Your task to perform on an android device: turn off location history Image 0: 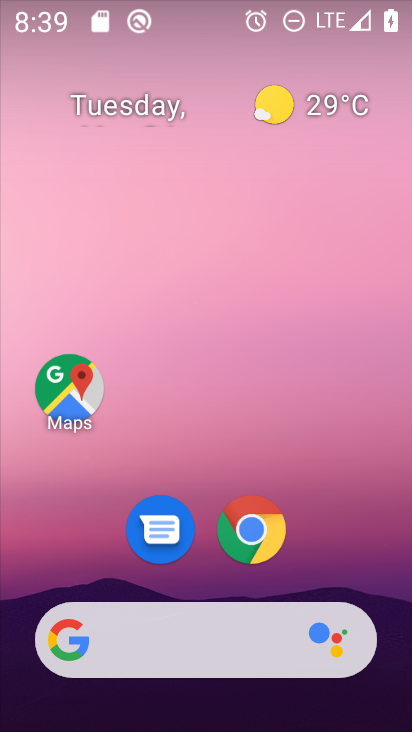
Step 0: drag from (388, 635) to (207, 17)
Your task to perform on an android device: turn off location history Image 1: 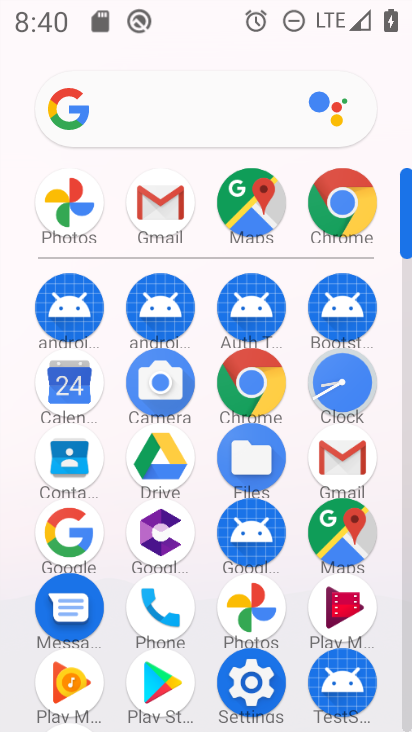
Step 1: click (269, 681)
Your task to perform on an android device: turn off location history Image 2: 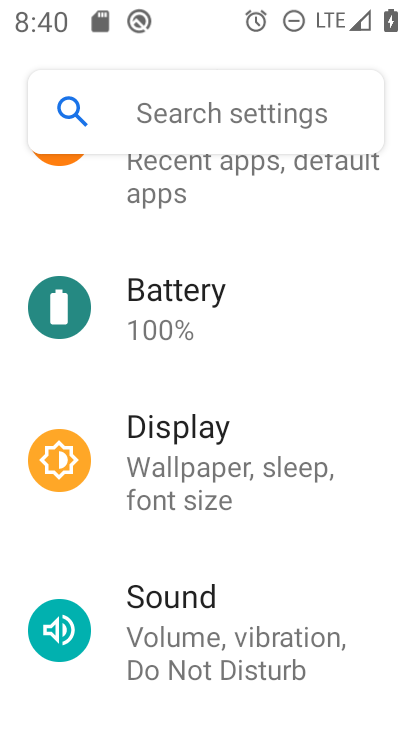
Step 2: drag from (219, 654) to (269, 228)
Your task to perform on an android device: turn off location history Image 3: 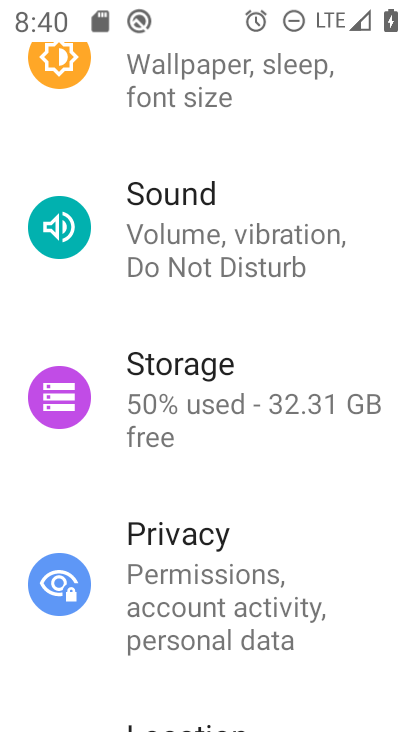
Step 3: drag from (124, 664) to (202, 214)
Your task to perform on an android device: turn off location history Image 4: 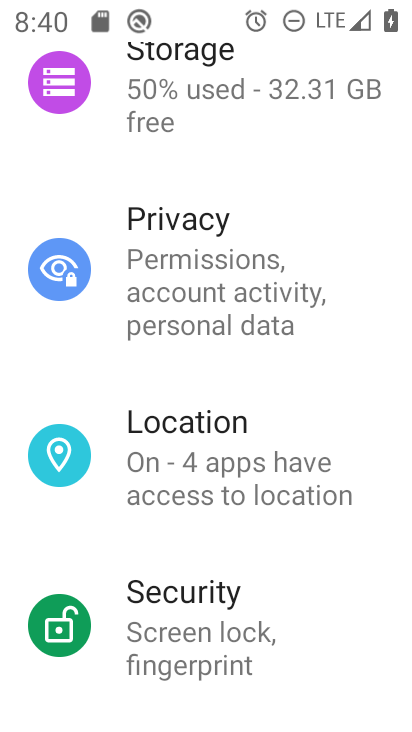
Step 4: click (223, 442)
Your task to perform on an android device: turn off location history Image 5: 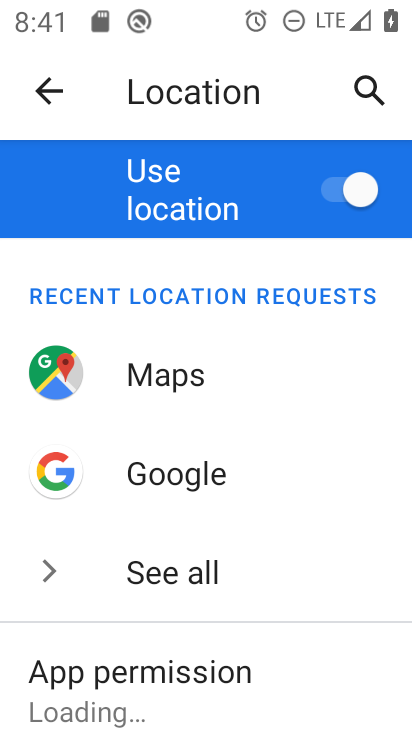
Step 5: drag from (197, 648) to (215, 154)
Your task to perform on an android device: turn off location history Image 6: 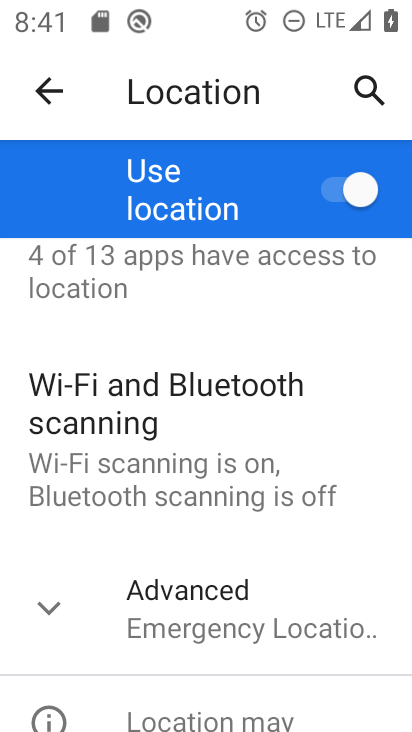
Step 6: click (157, 602)
Your task to perform on an android device: turn off location history Image 7: 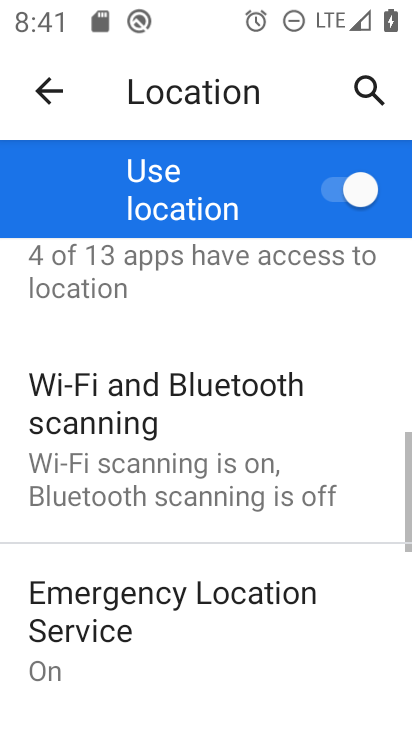
Step 7: drag from (181, 625) to (267, 205)
Your task to perform on an android device: turn off location history Image 8: 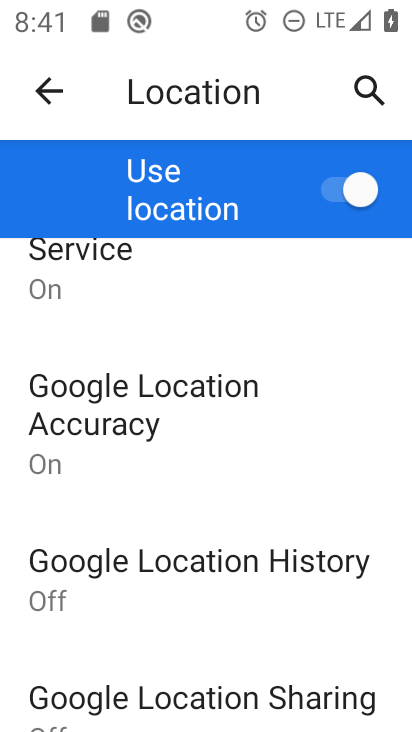
Step 8: click (267, 575)
Your task to perform on an android device: turn off location history Image 9: 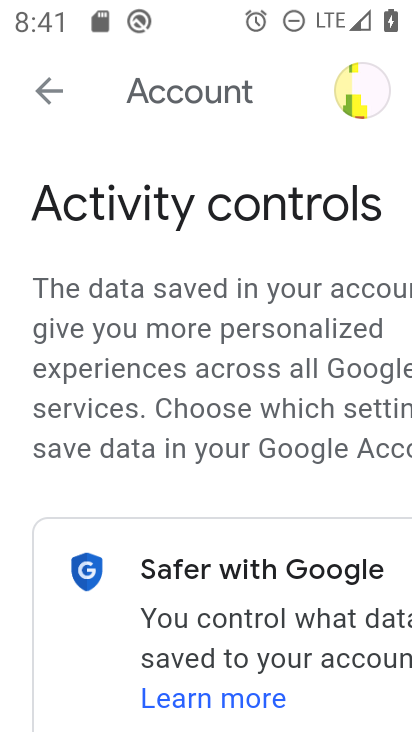
Step 9: task complete